Your task to perform on an android device: toggle show notifications on the lock screen Image 0: 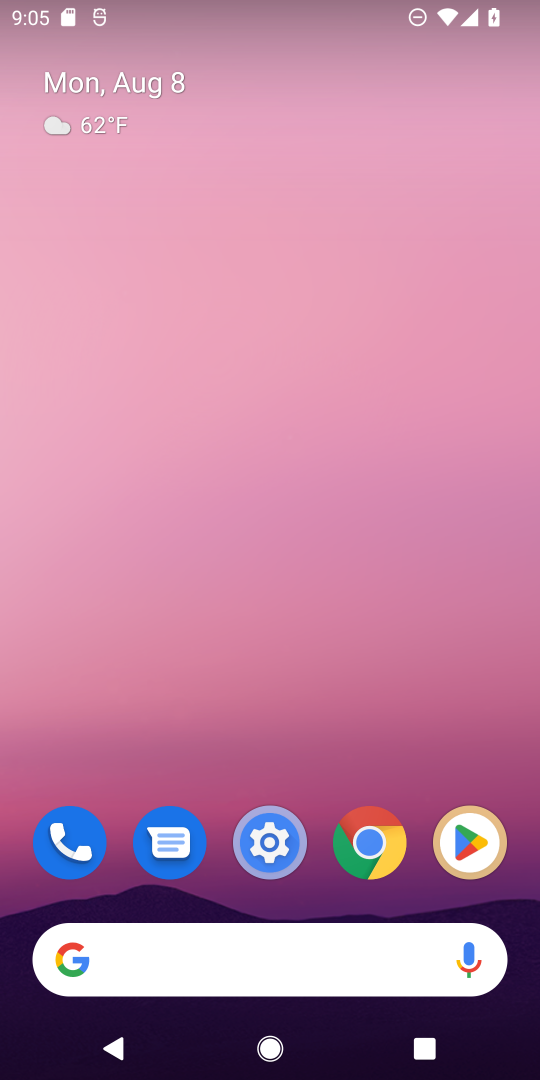
Step 0: click (275, 759)
Your task to perform on an android device: toggle show notifications on the lock screen Image 1: 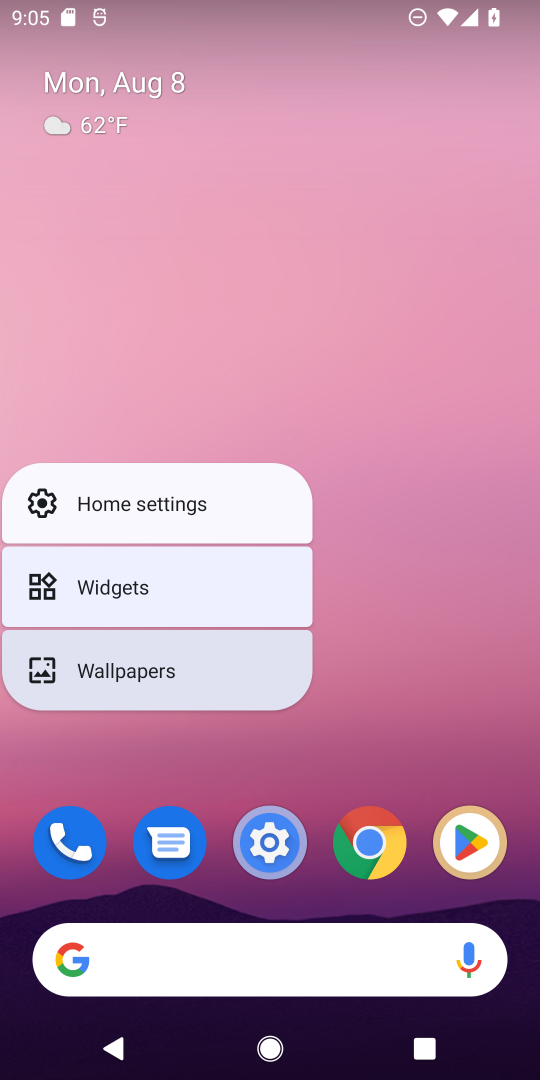
Step 1: click (361, 673)
Your task to perform on an android device: toggle show notifications on the lock screen Image 2: 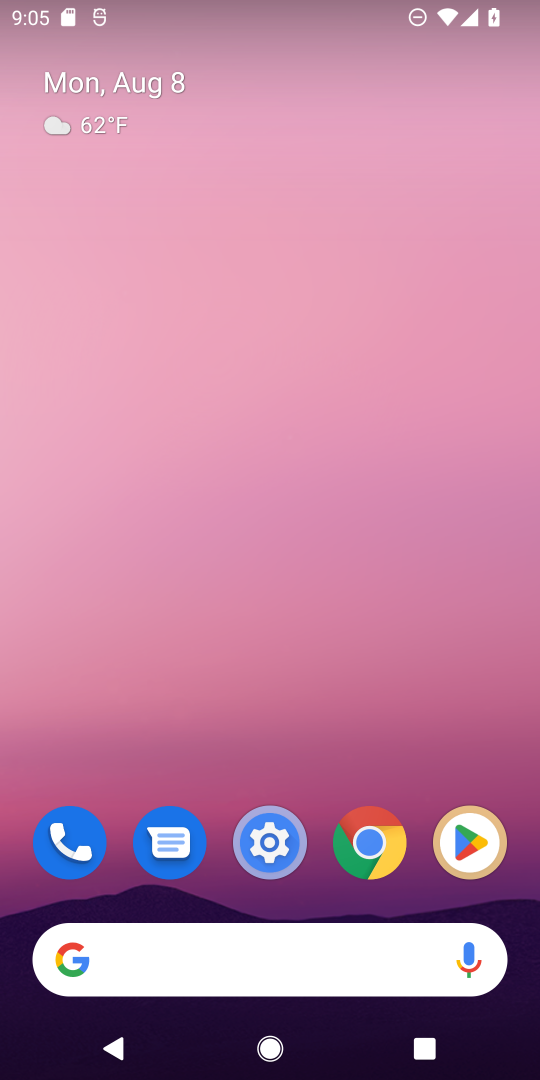
Step 2: click (274, 849)
Your task to perform on an android device: toggle show notifications on the lock screen Image 3: 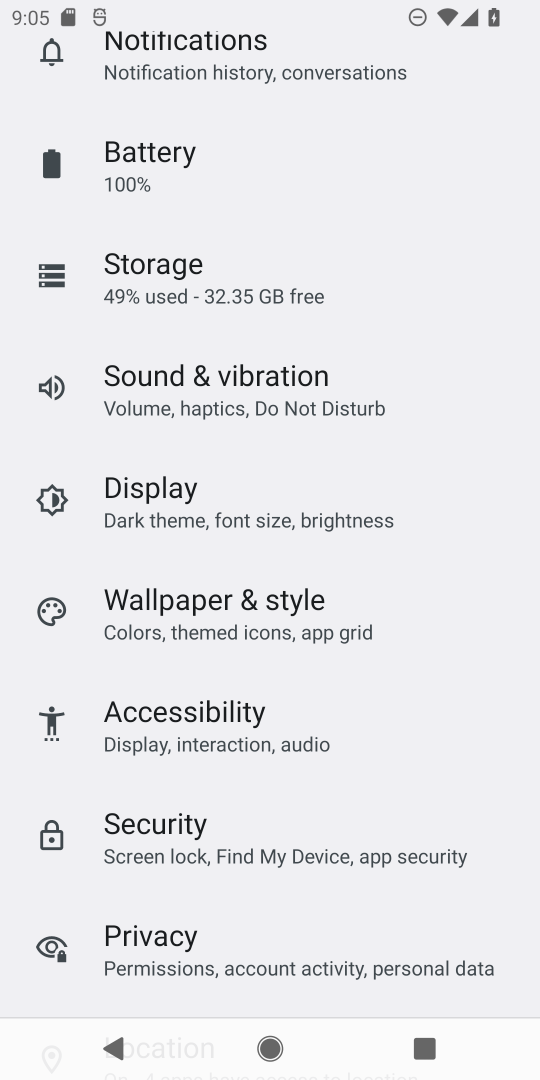
Step 3: click (279, 58)
Your task to perform on an android device: toggle show notifications on the lock screen Image 4: 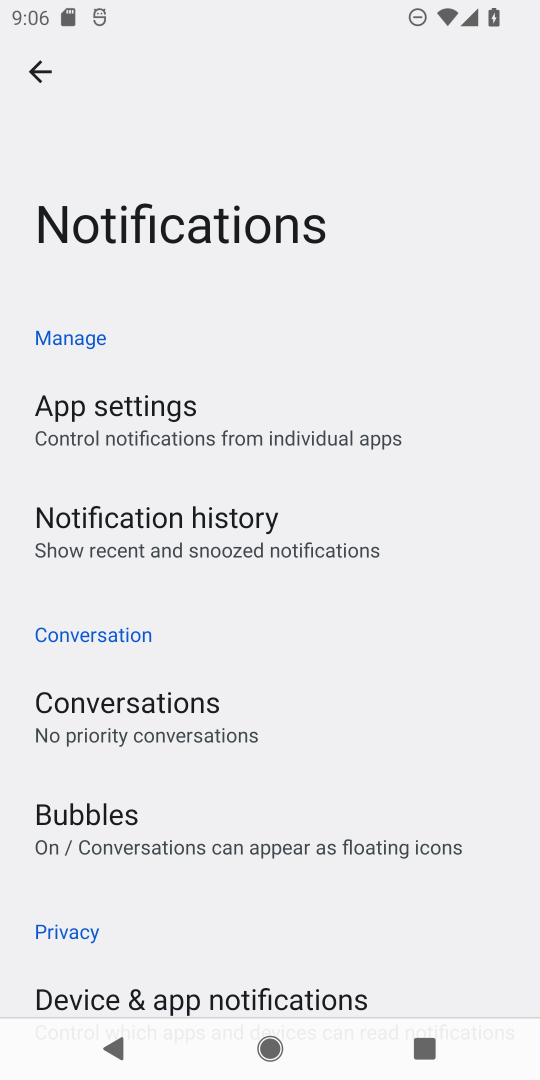
Step 4: click (258, 547)
Your task to perform on an android device: toggle show notifications on the lock screen Image 5: 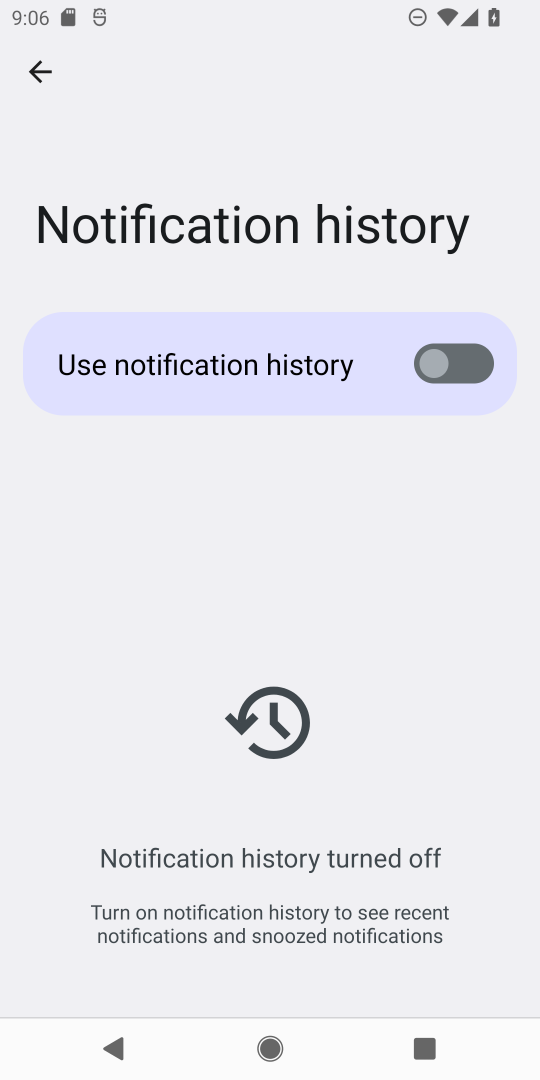
Step 5: click (36, 67)
Your task to perform on an android device: toggle show notifications on the lock screen Image 6: 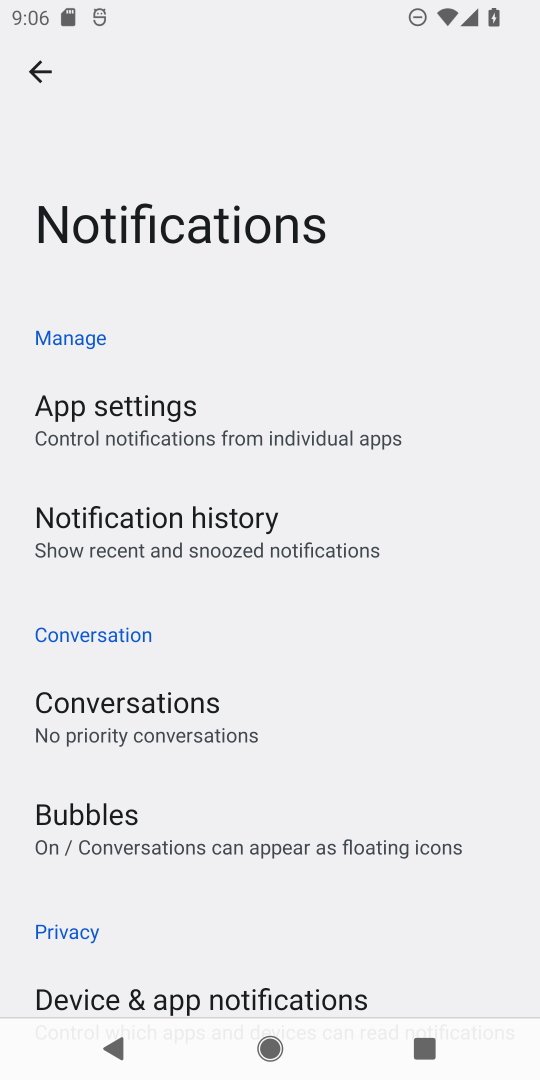
Step 6: drag from (272, 919) to (358, 252)
Your task to perform on an android device: toggle show notifications on the lock screen Image 7: 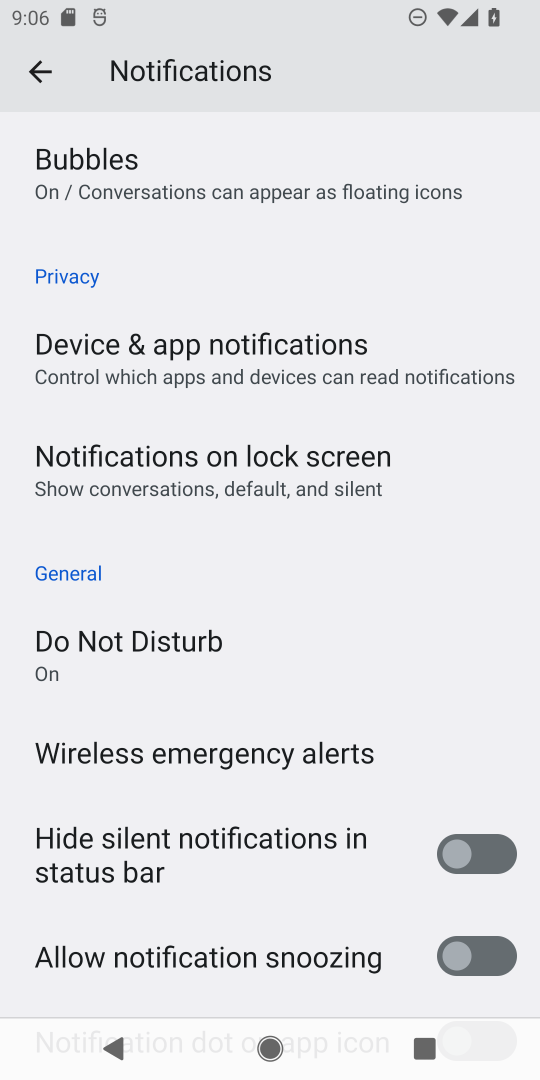
Step 7: click (327, 456)
Your task to perform on an android device: toggle show notifications on the lock screen Image 8: 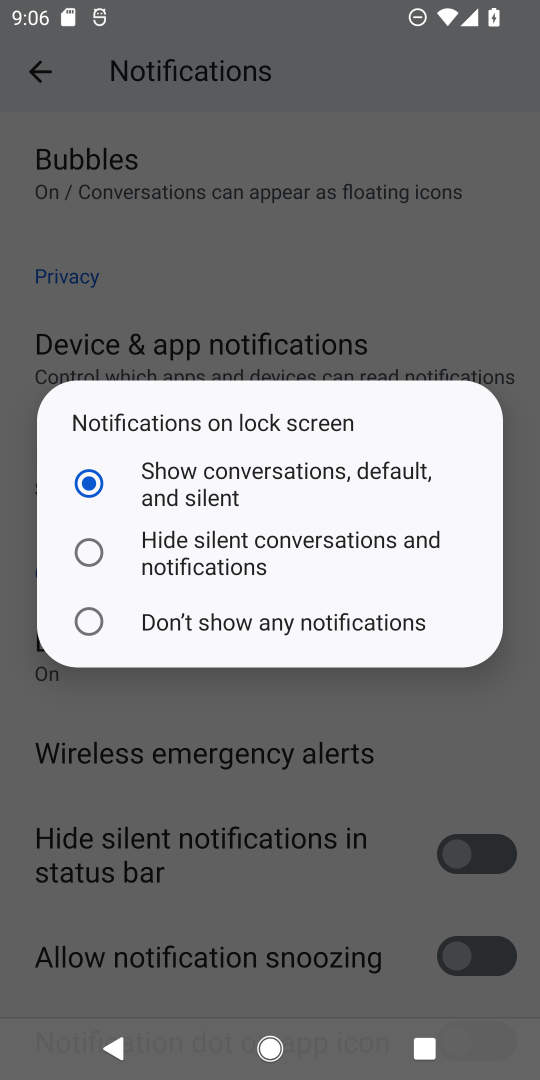
Step 8: click (295, 612)
Your task to perform on an android device: toggle show notifications on the lock screen Image 9: 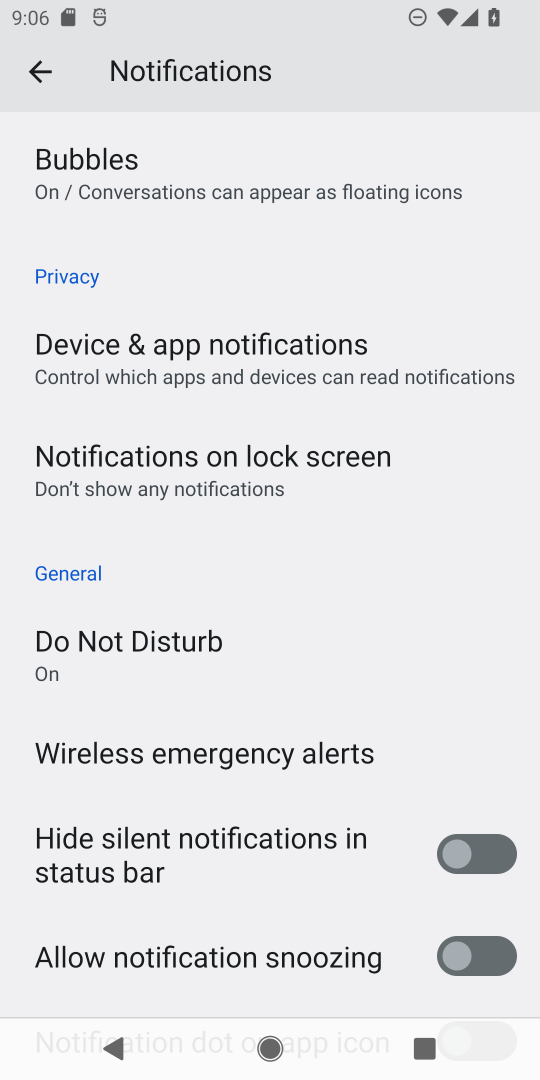
Step 9: task complete